Your task to perform on an android device: toggle pop-ups in chrome Image 0: 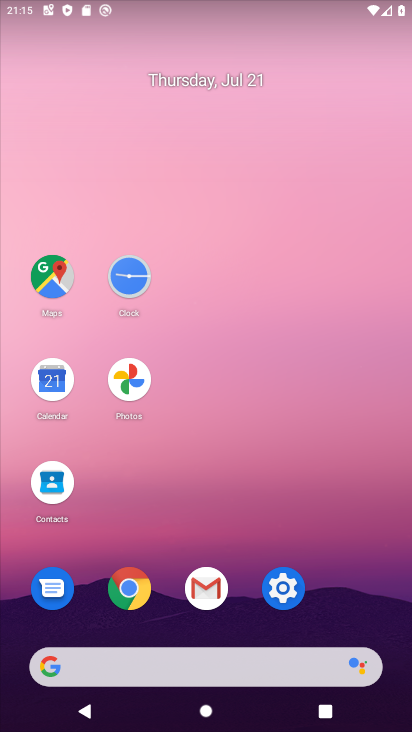
Step 0: click (123, 589)
Your task to perform on an android device: toggle pop-ups in chrome Image 1: 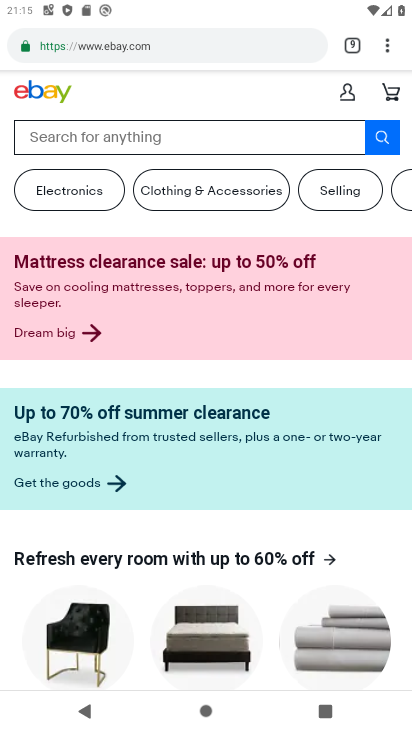
Step 1: click (390, 41)
Your task to perform on an android device: toggle pop-ups in chrome Image 2: 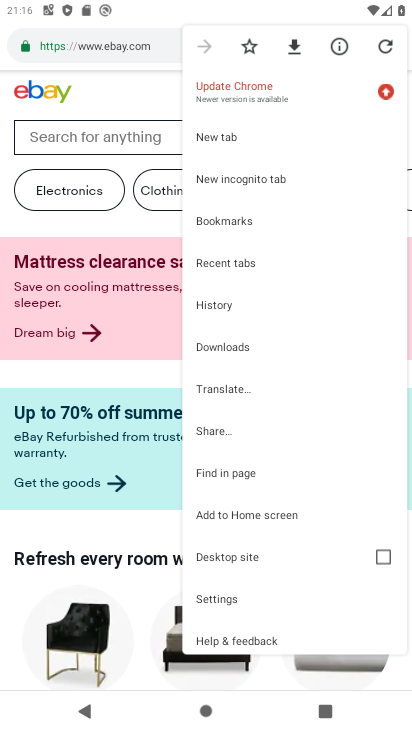
Step 2: click (222, 594)
Your task to perform on an android device: toggle pop-ups in chrome Image 3: 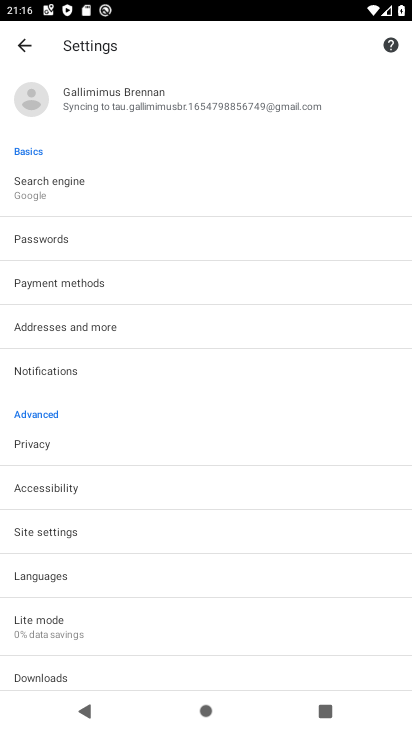
Step 3: click (61, 523)
Your task to perform on an android device: toggle pop-ups in chrome Image 4: 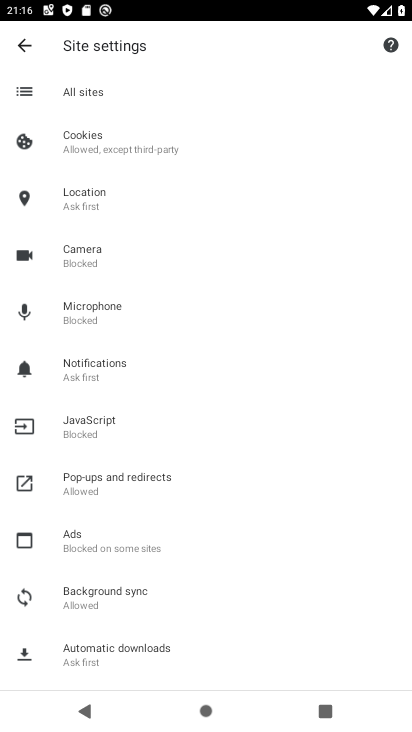
Step 4: click (115, 472)
Your task to perform on an android device: toggle pop-ups in chrome Image 5: 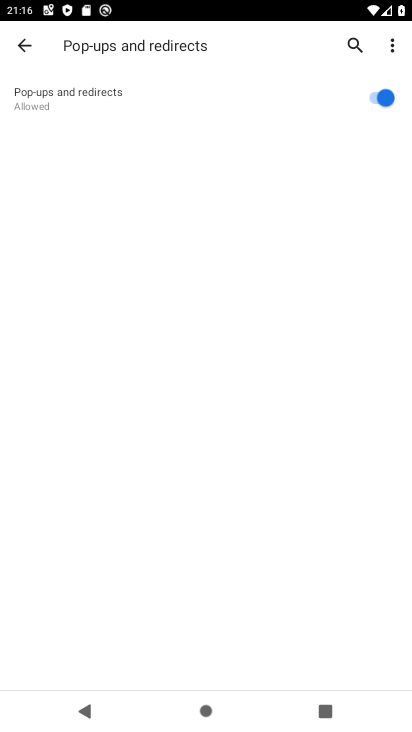
Step 5: click (379, 96)
Your task to perform on an android device: toggle pop-ups in chrome Image 6: 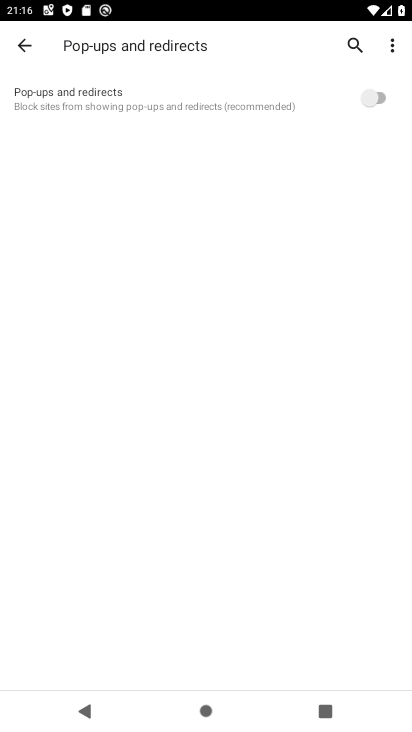
Step 6: task complete